Your task to perform on an android device: turn on airplane mode Image 0: 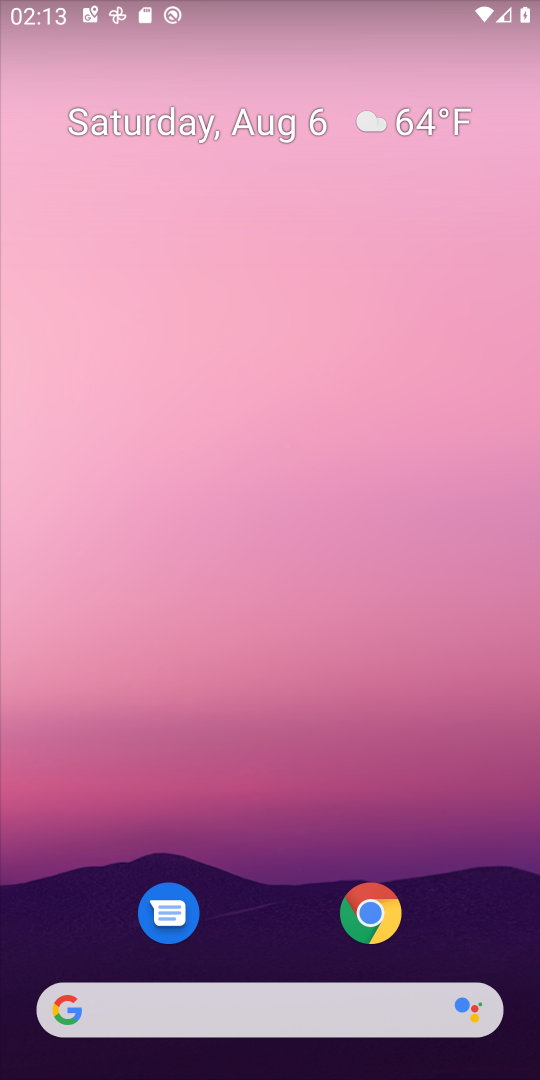
Step 0: press home button
Your task to perform on an android device: turn on airplane mode Image 1: 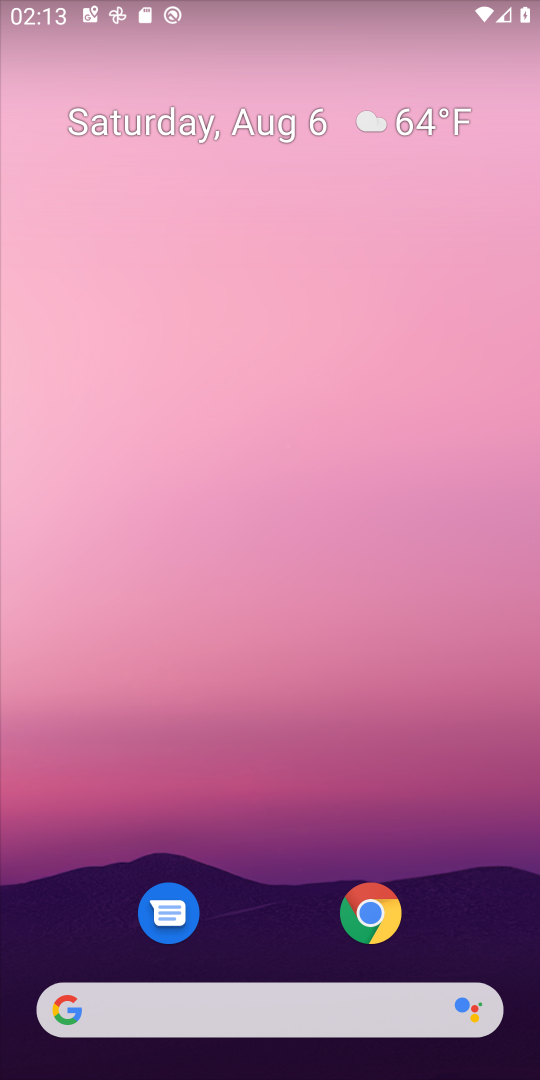
Step 1: drag from (470, 920) to (416, 292)
Your task to perform on an android device: turn on airplane mode Image 2: 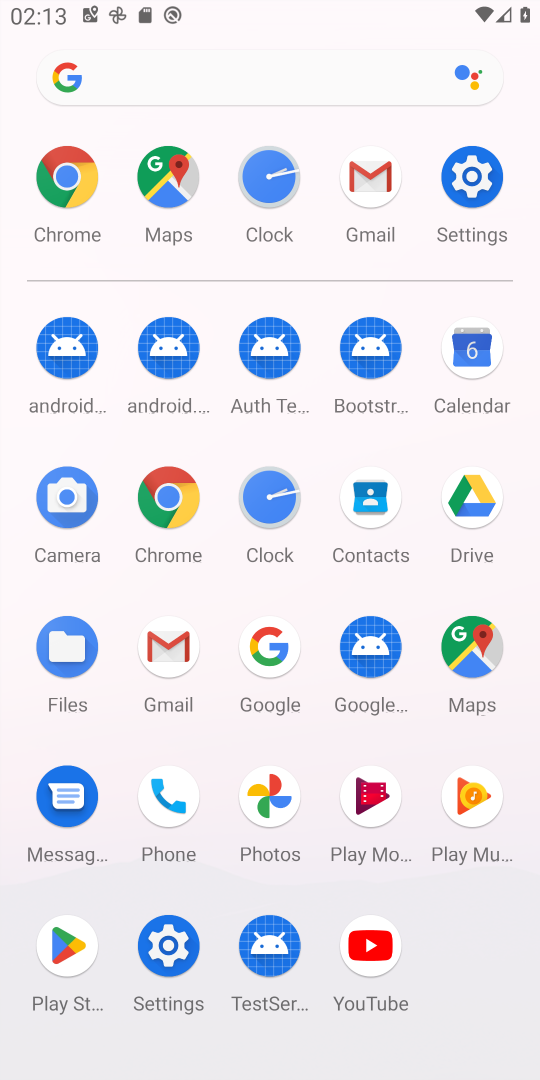
Step 2: click (480, 161)
Your task to perform on an android device: turn on airplane mode Image 3: 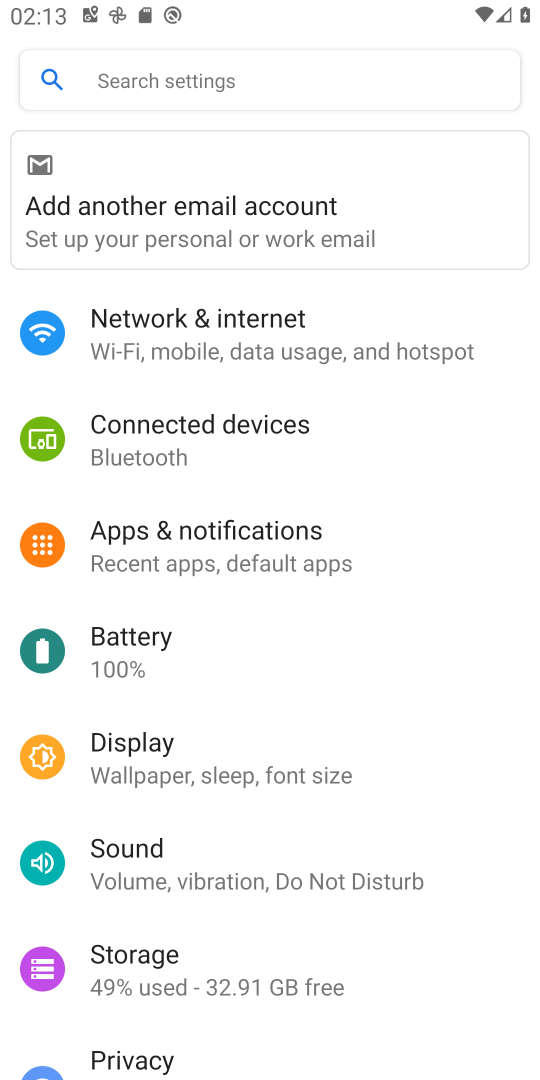
Step 3: drag from (452, 650) to (452, 480)
Your task to perform on an android device: turn on airplane mode Image 4: 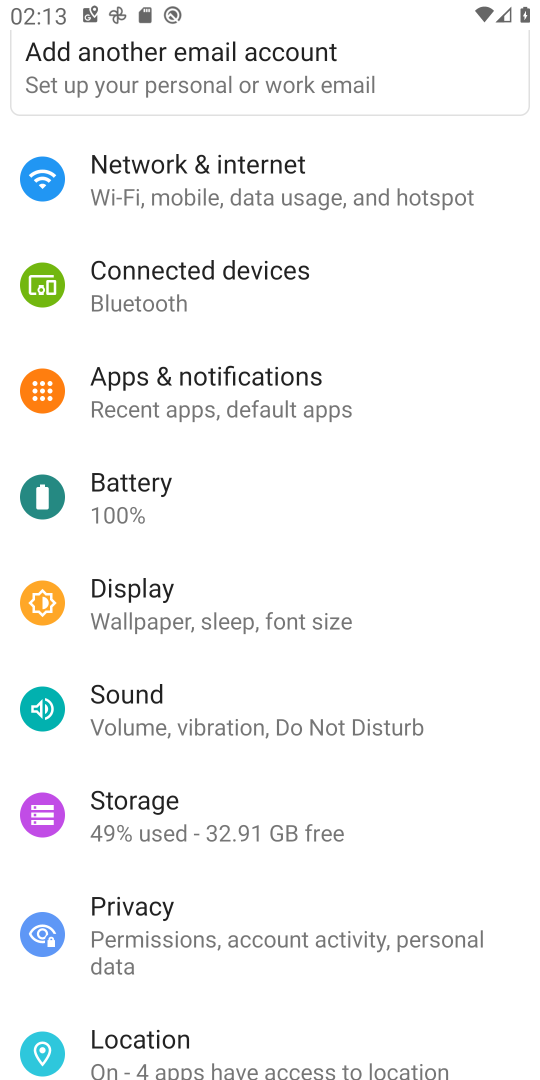
Step 4: drag from (443, 600) to (445, 496)
Your task to perform on an android device: turn on airplane mode Image 5: 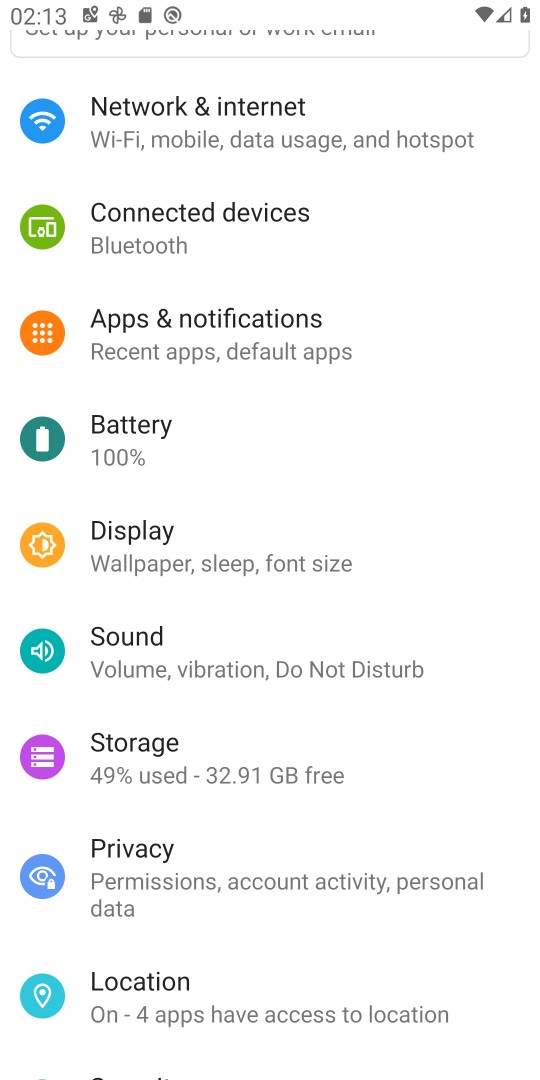
Step 5: drag from (444, 736) to (451, 540)
Your task to perform on an android device: turn on airplane mode Image 6: 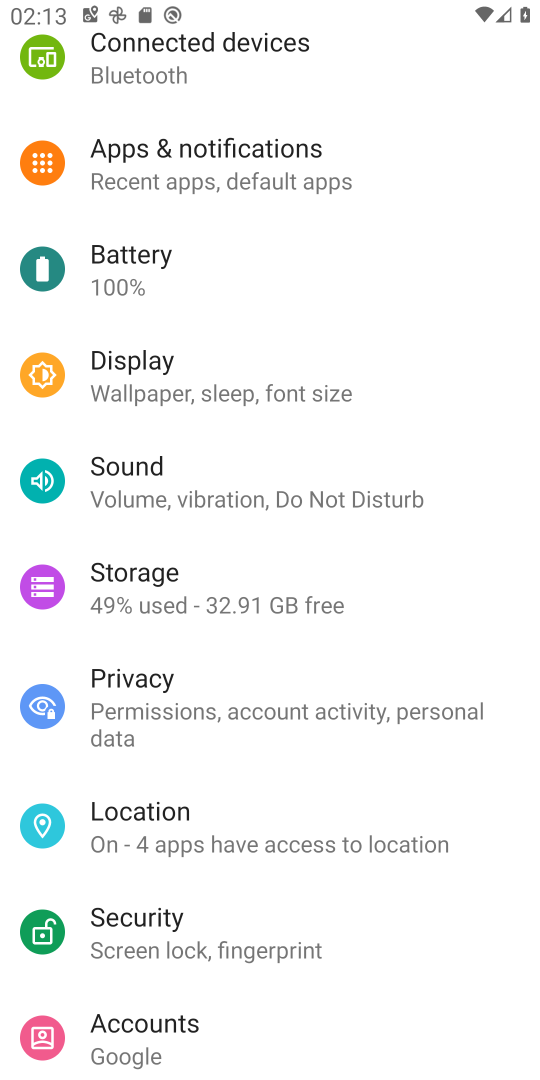
Step 6: drag from (444, 771) to (458, 600)
Your task to perform on an android device: turn on airplane mode Image 7: 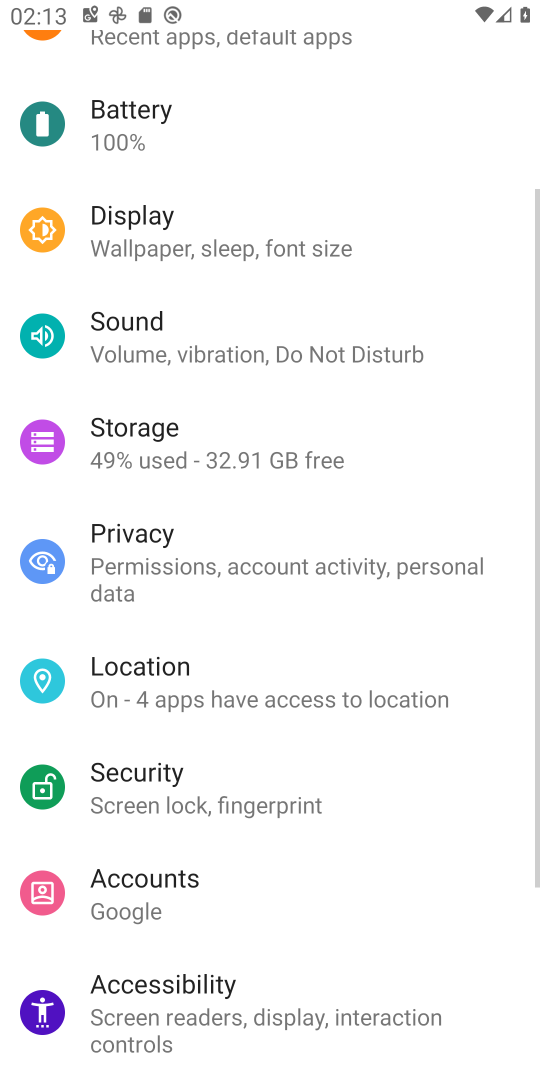
Step 7: drag from (476, 811) to (483, 595)
Your task to perform on an android device: turn on airplane mode Image 8: 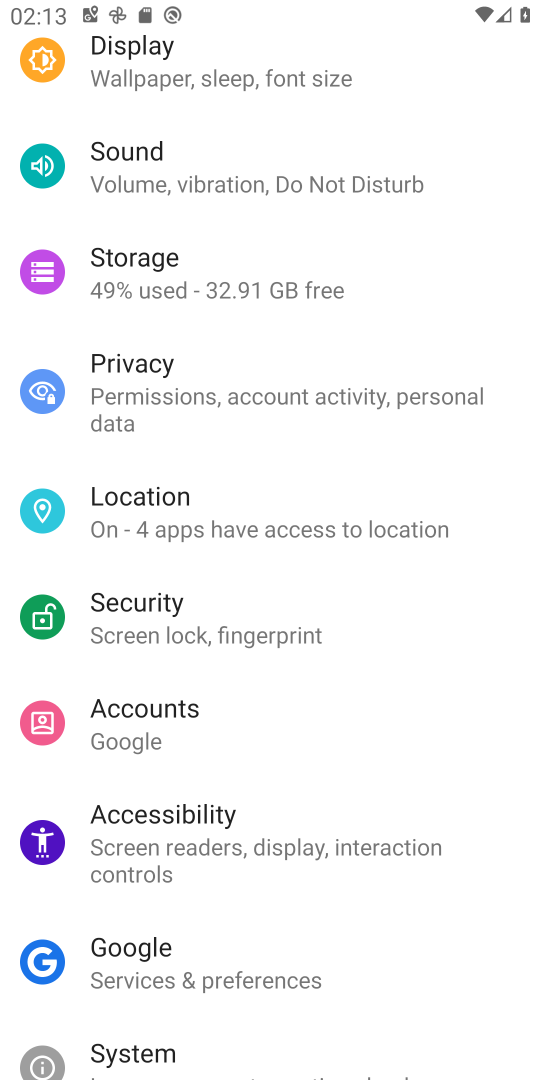
Step 8: drag from (459, 827) to (459, 597)
Your task to perform on an android device: turn on airplane mode Image 9: 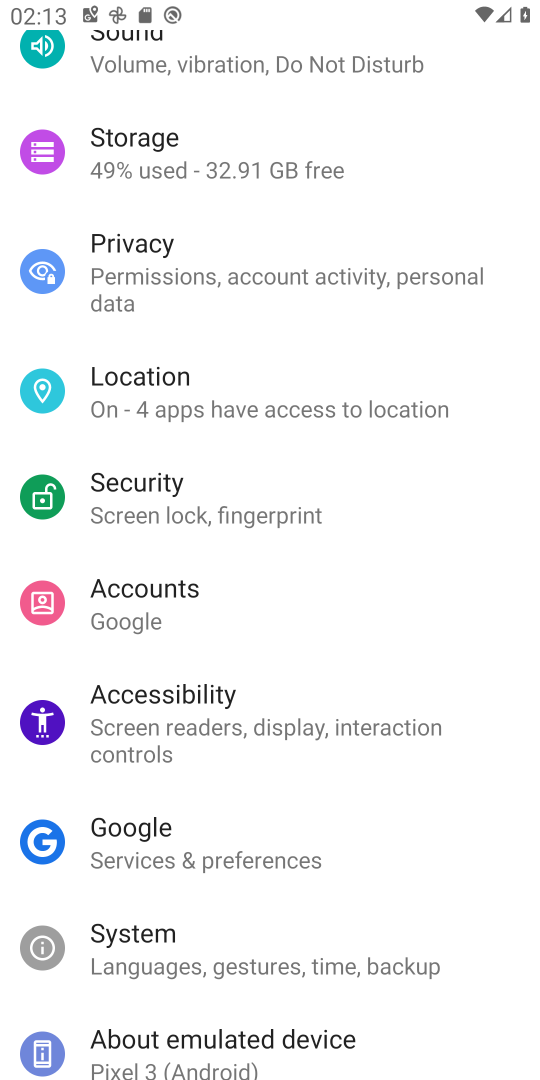
Step 9: drag from (467, 446) to (463, 588)
Your task to perform on an android device: turn on airplane mode Image 10: 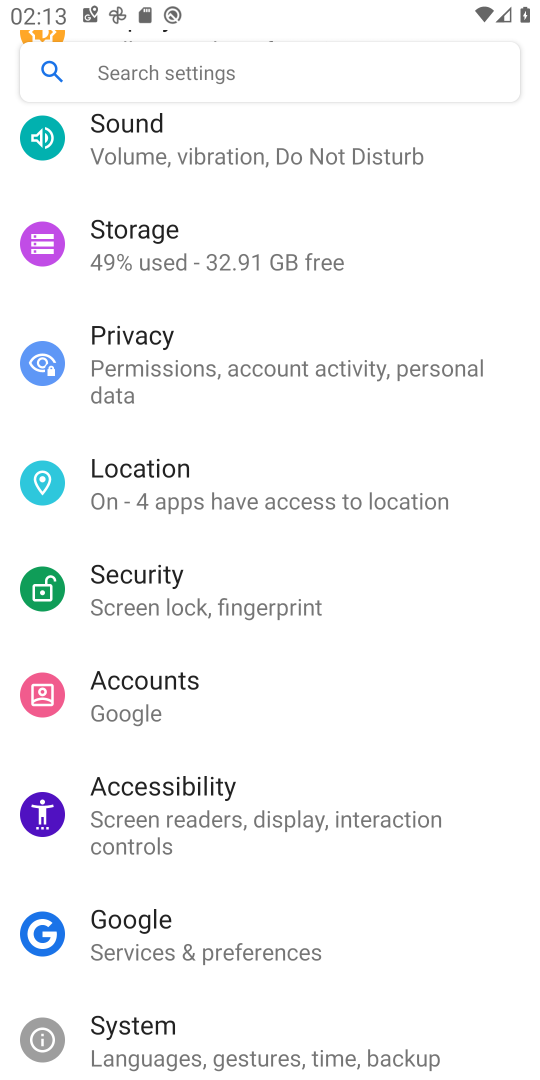
Step 10: drag from (480, 422) to (491, 550)
Your task to perform on an android device: turn on airplane mode Image 11: 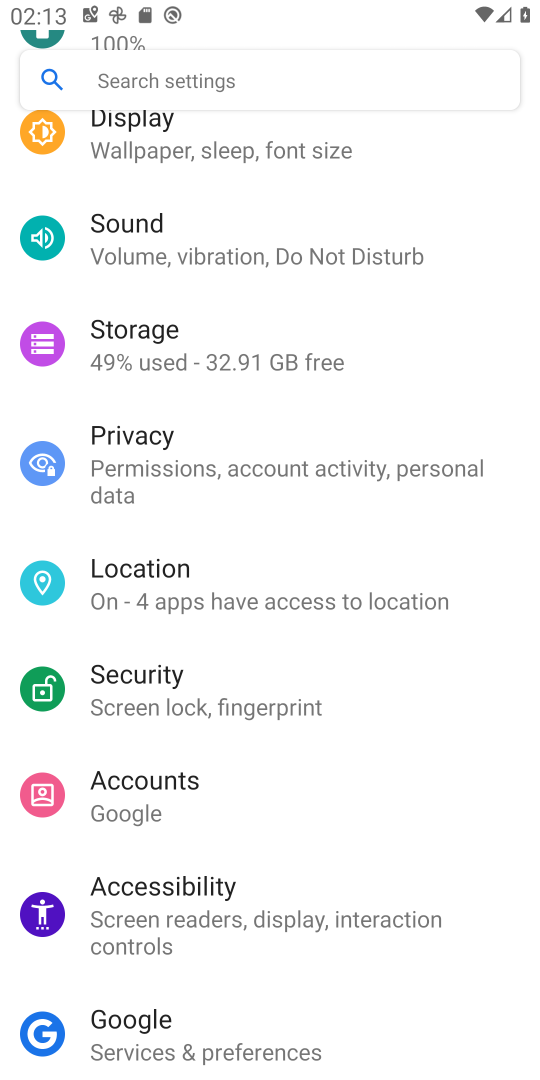
Step 11: drag from (482, 323) to (479, 494)
Your task to perform on an android device: turn on airplane mode Image 12: 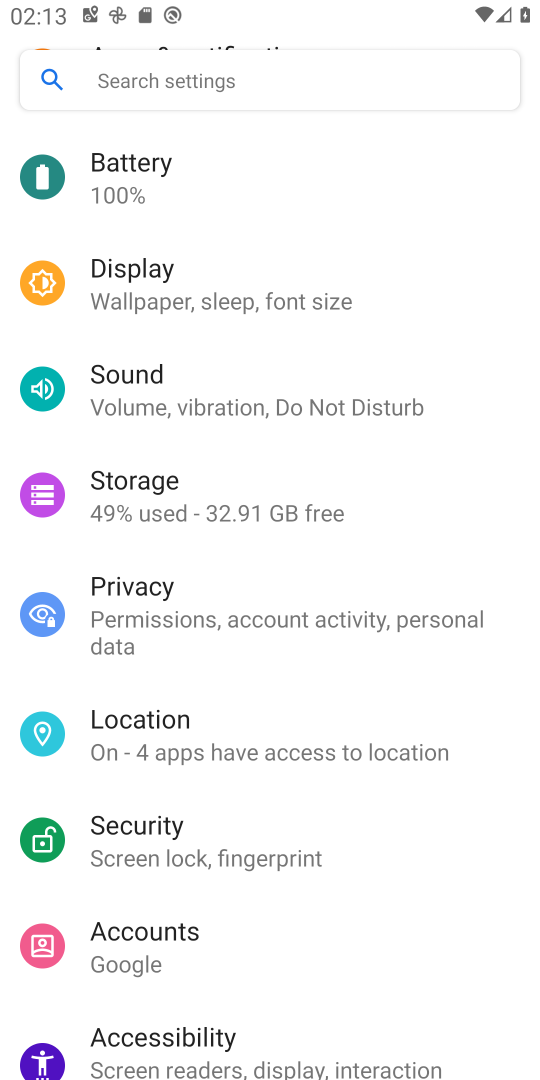
Step 12: drag from (466, 249) to (460, 415)
Your task to perform on an android device: turn on airplane mode Image 13: 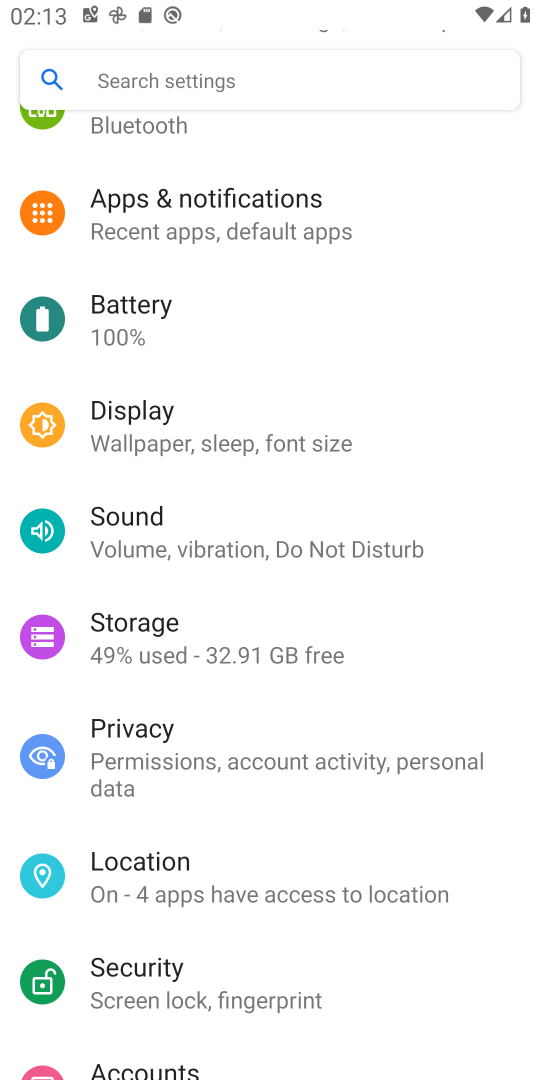
Step 13: drag from (463, 215) to (459, 380)
Your task to perform on an android device: turn on airplane mode Image 14: 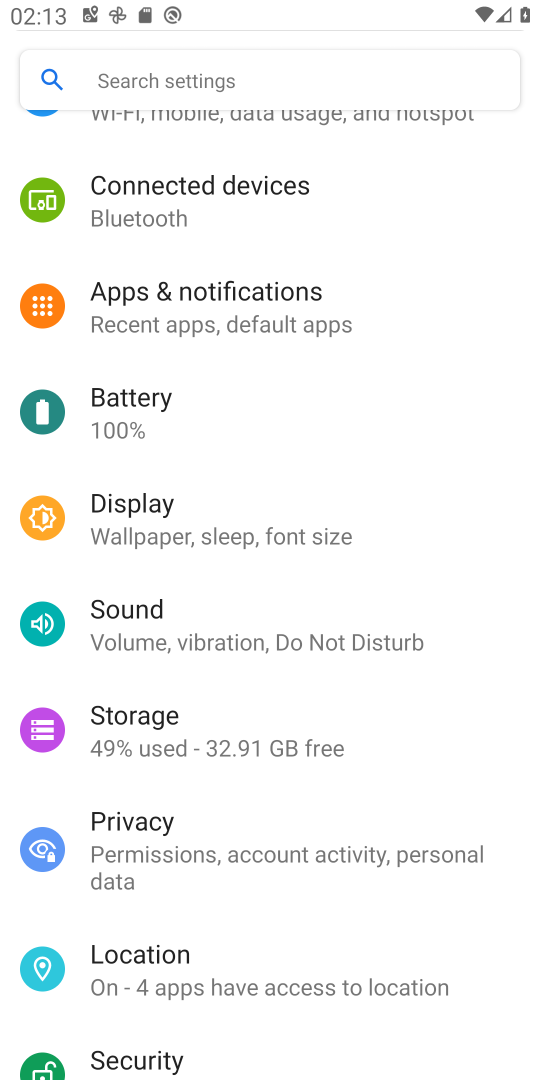
Step 14: drag from (457, 198) to (456, 406)
Your task to perform on an android device: turn on airplane mode Image 15: 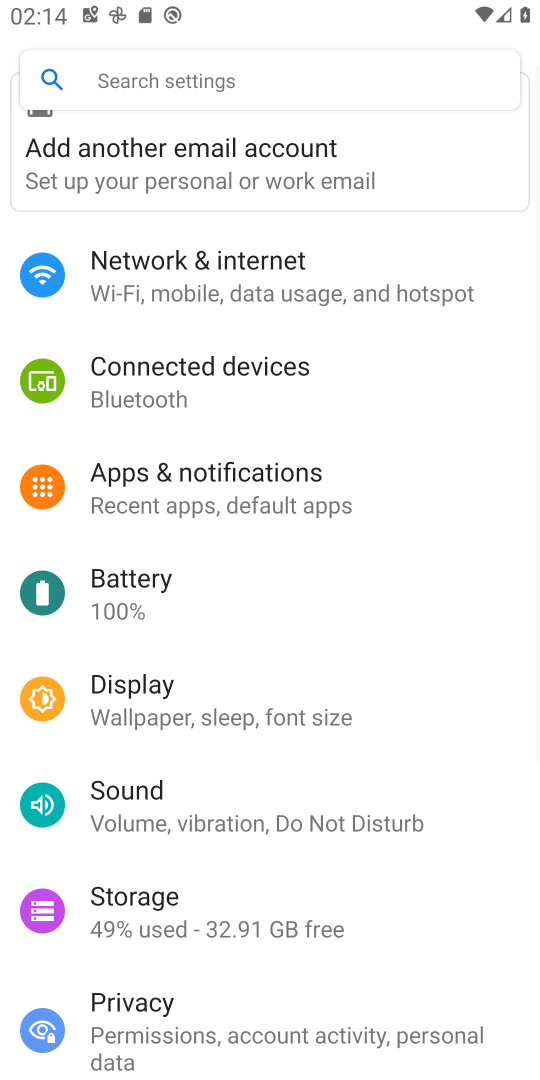
Step 15: click (456, 258)
Your task to perform on an android device: turn on airplane mode Image 16: 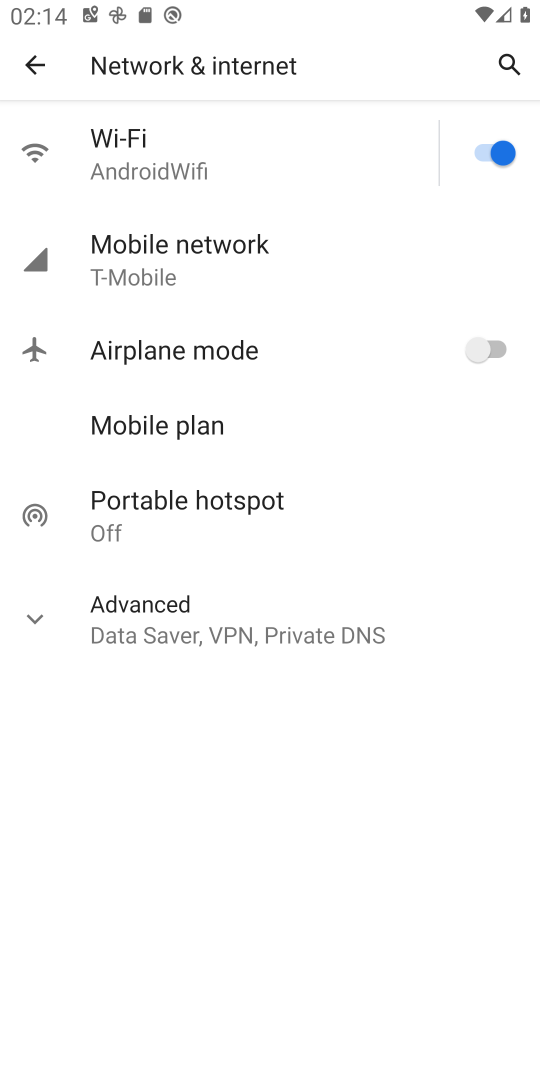
Step 16: click (475, 354)
Your task to perform on an android device: turn on airplane mode Image 17: 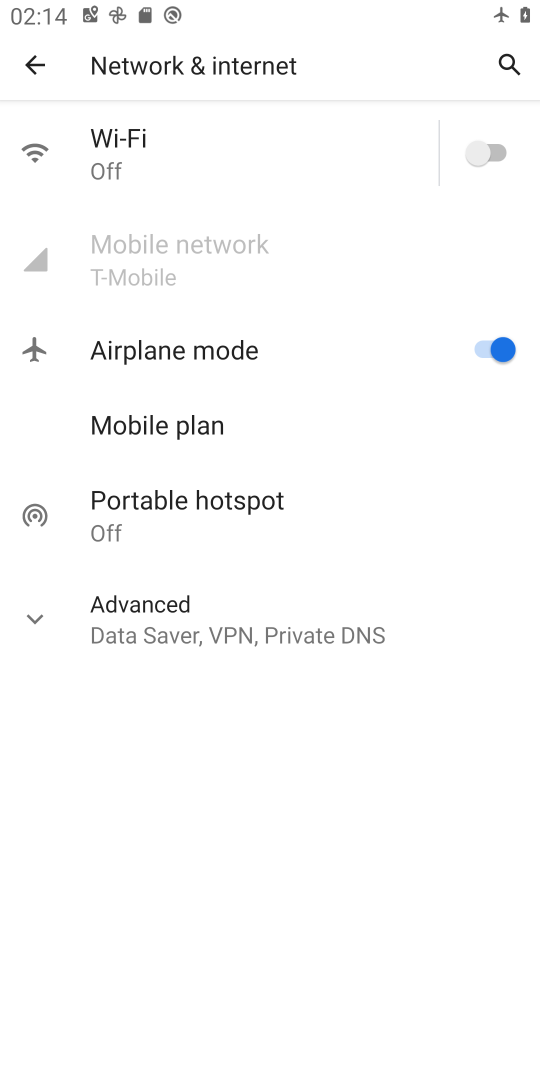
Step 17: task complete